Your task to perform on an android device: show emergency info Image 0: 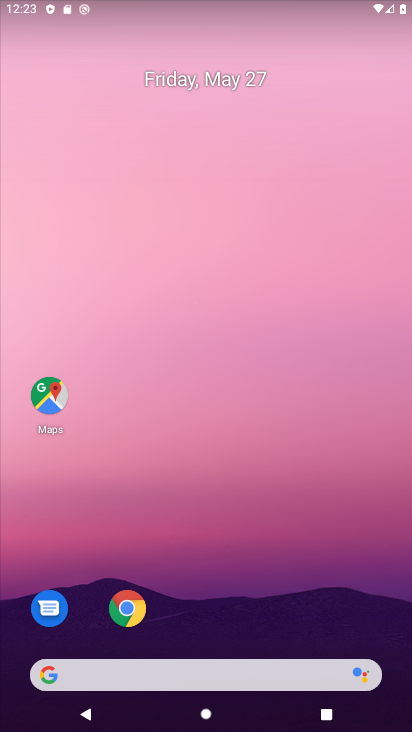
Step 0: drag from (186, 636) to (262, 59)
Your task to perform on an android device: show emergency info Image 1: 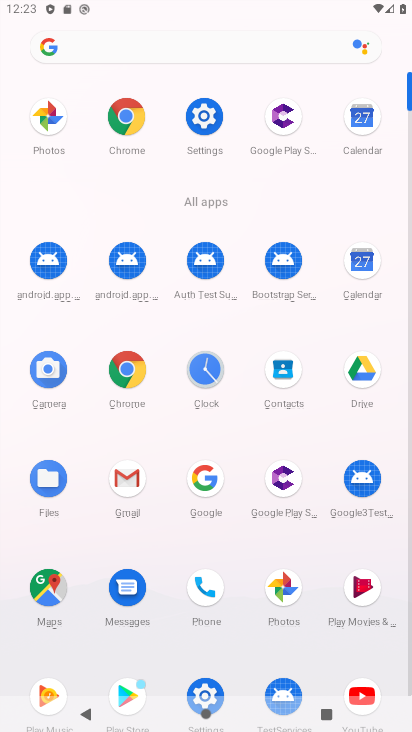
Step 1: click (209, 112)
Your task to perform on an android device: show emergency info Image 2: 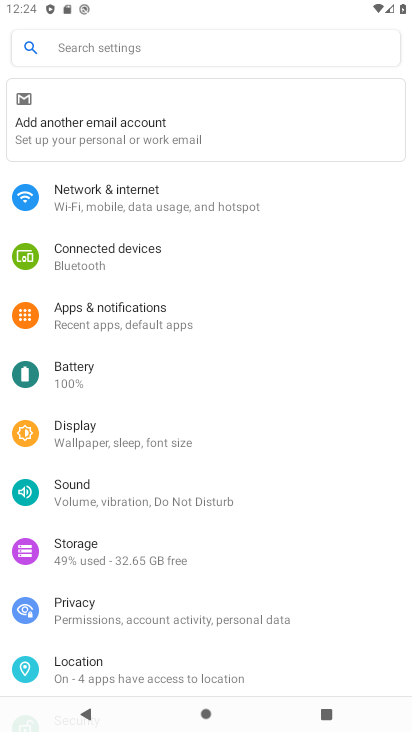
Step 2: drag from (246, 593) to (193, 142)
Your task to perform on an android device: show emergency info Image 3: 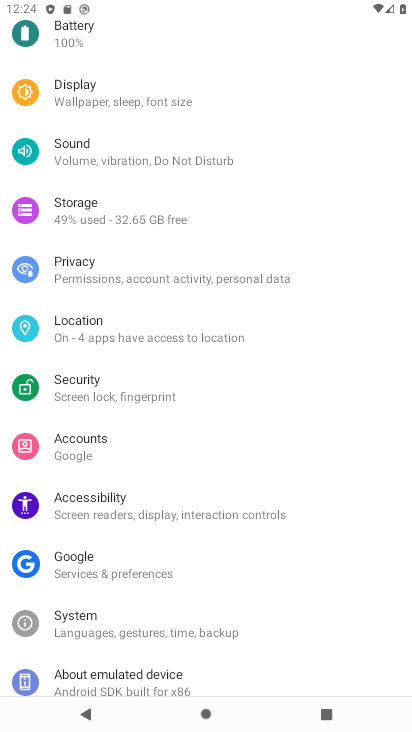
Step 3: drag from (172, 614) to (209, 6)
Your task to perform on an android device: show emergency info Image 4: 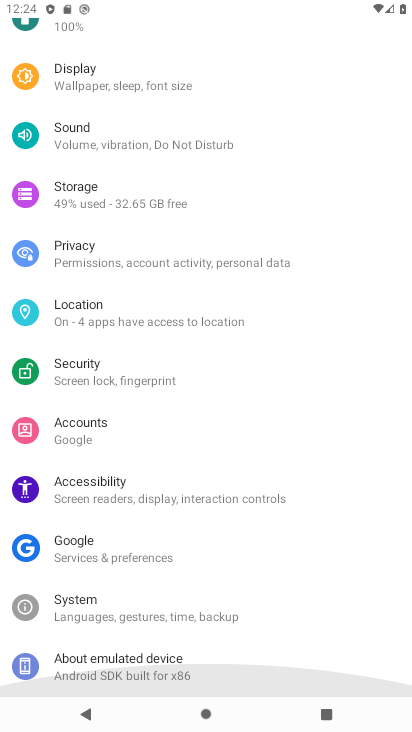
Step 4: drag from (147, 566) to (184, 134)
Your task to perform on an android device: show emergency info Image 5: 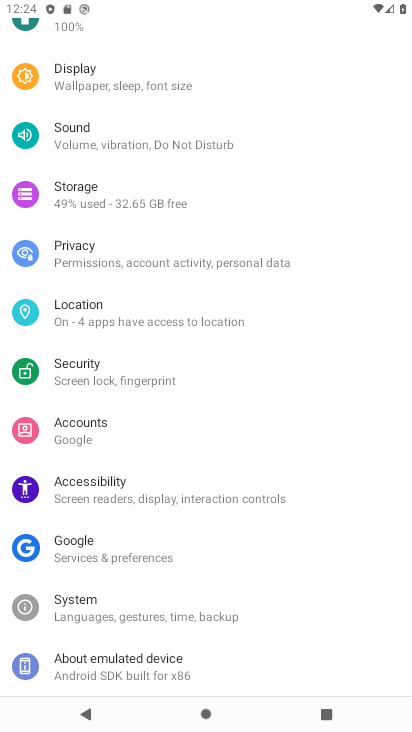
Step 5: click (140, 653)
Your task to perform on an android device: show emergency info Image 6: 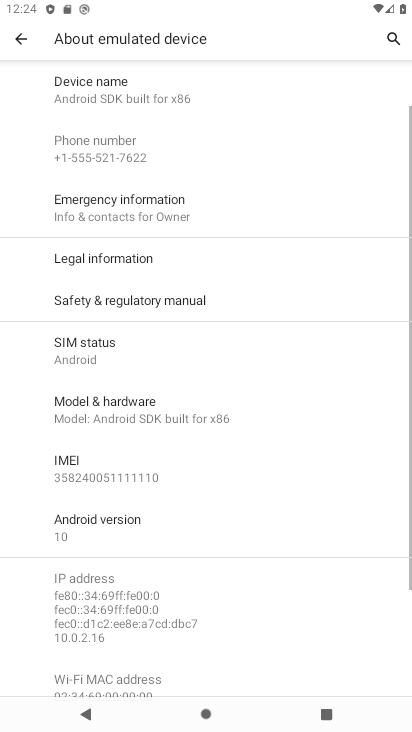
Step 6: click (129, 200)
Your task to perform on an android device: show emergency info Image 7: 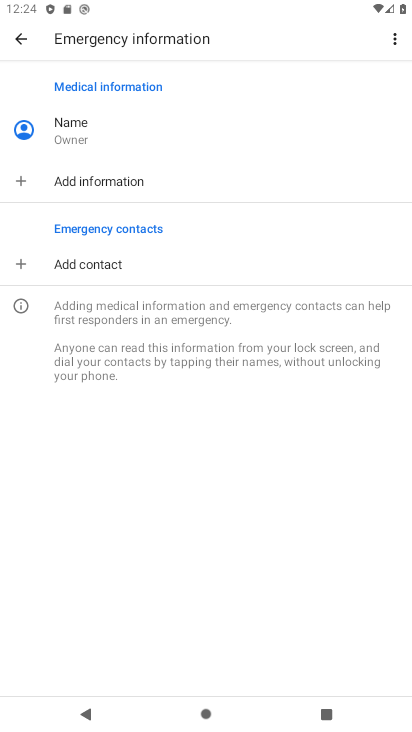
Step 7: task complete